Your task to perform on an android device: Do I have any events this weekend? Image 0: 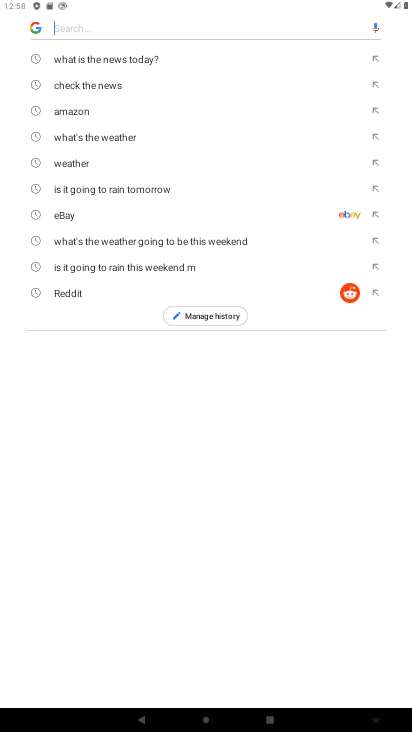
Step 0: press home button
Your task to perform on an android device: Do I have any events this weekend? Image 1: 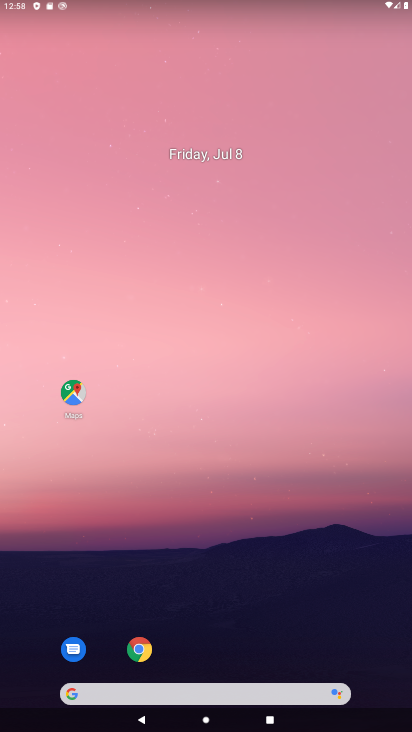
Step 1: click (111, 688)
Your task to perform on an android device: Do I have any events this weekend? Image 2: 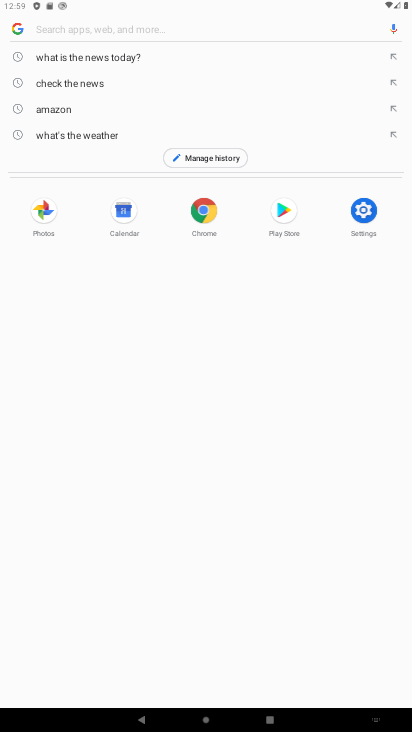
Step 2: press home button
Your task to perform on an android device: Do I have any events this weekend? Image 3: 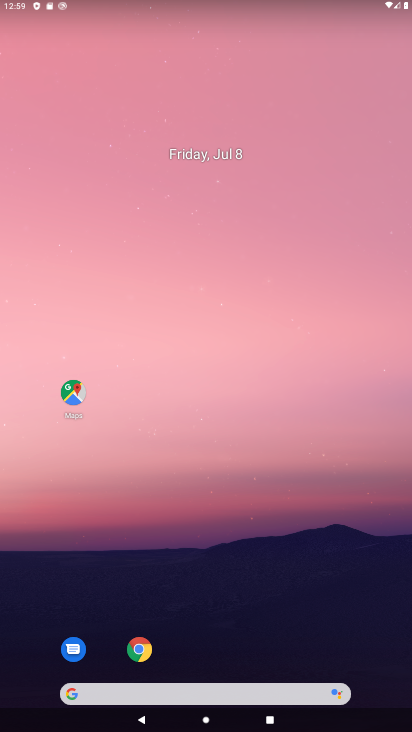
Step 3: drag from (56, 619) to (289, 56)
Your task to perform on an android device: Do I have any events this weekend? Image 4: 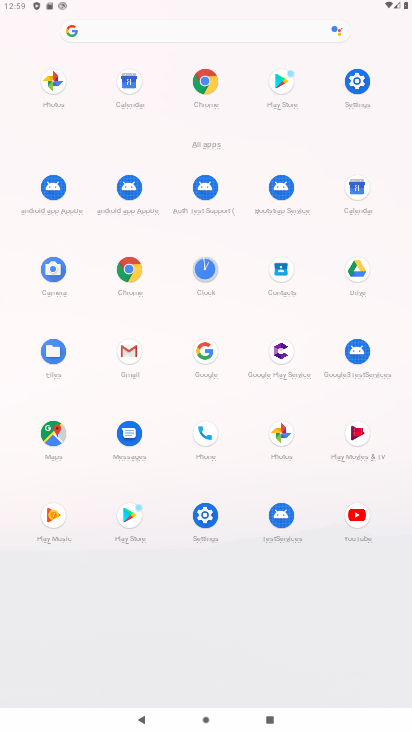
Step 4: click (367, 179)
Your task to perform on an android device: Do I have any events this weekend? Image 5: 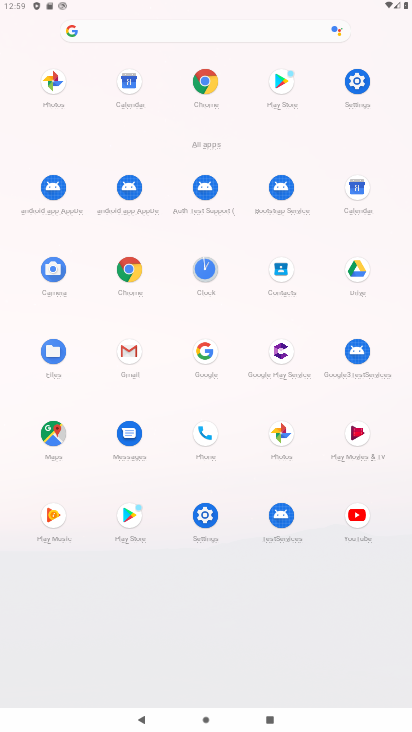
Step 5: click (362, 182)
Your task to perform on an android device: Do I have any events this weekend? Image 6: 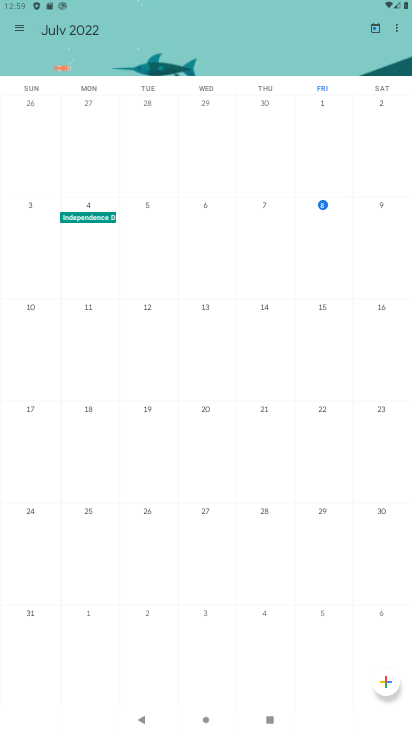
Step 6: task complete